Your task to perform on an android device: Show me popular games on the Play Store Image 0: 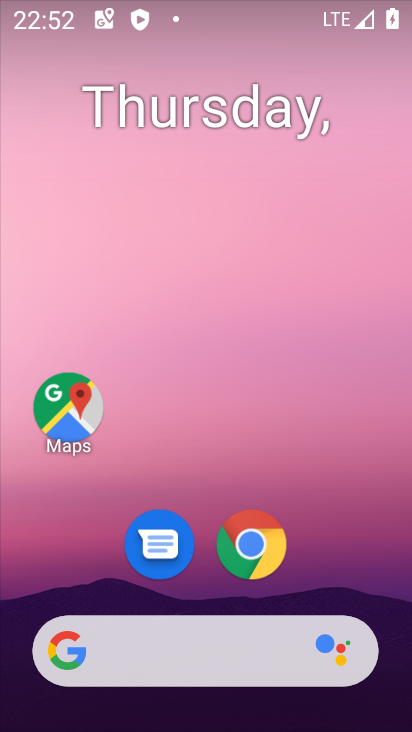
Step 0: drag from (310, 584) to (307, 156)
Your task to perform on an android device: Show me popular games on the Play Store Image 1: 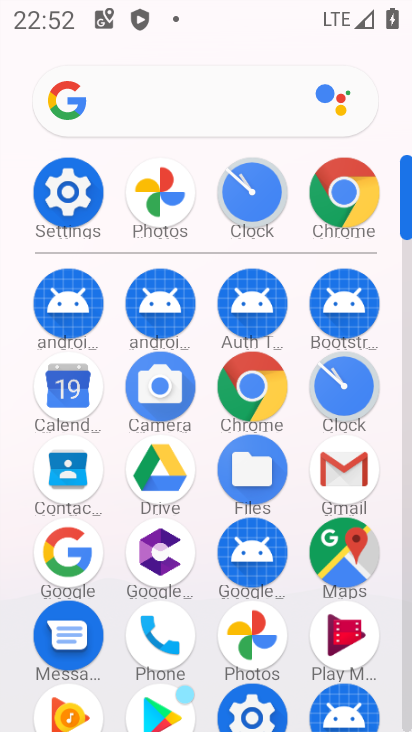
Step 1: click (167, 717)
Your task to perform on an android device: Show me popular games on the Play Store Image 2: 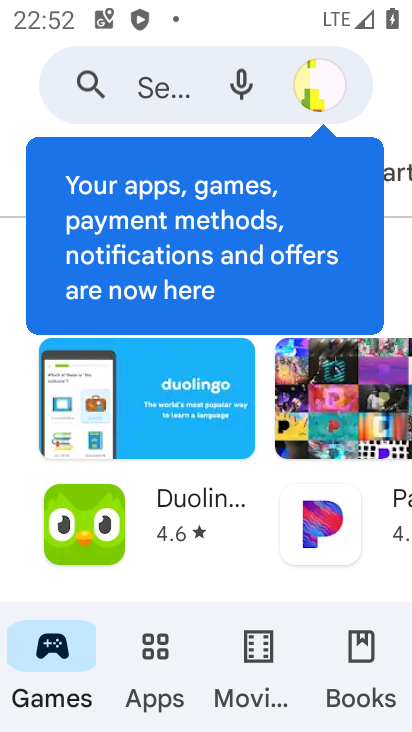
Step 2: drag from (161, 590) to (160, 475)
Your task to perform on an android device: Show me popular games on the Play Store Image 3: 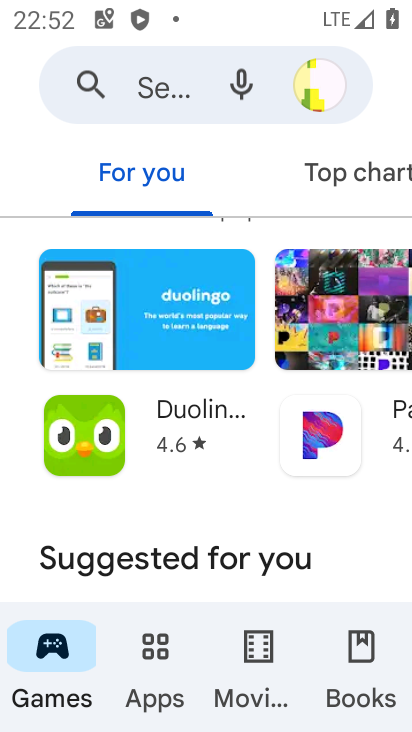
Step 3: drag from (178, 293) to (183, 514)
Your task to perform on an android device: Show me popular games on the Play Store Image 4: 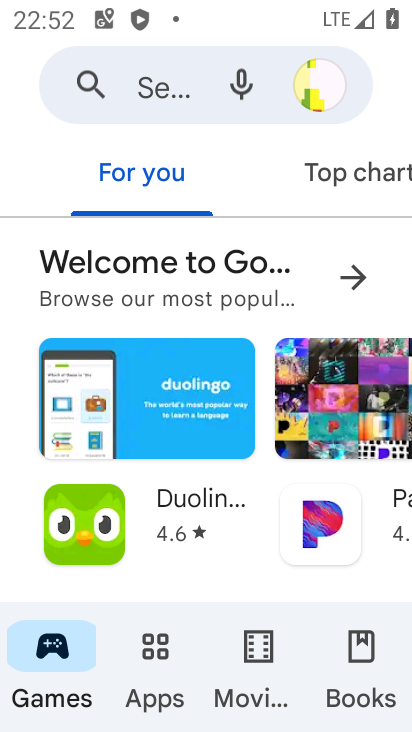
Step 4: click (356, 274)
Your task to perform on an android device: Show me popular games on the Play Store Image 5: 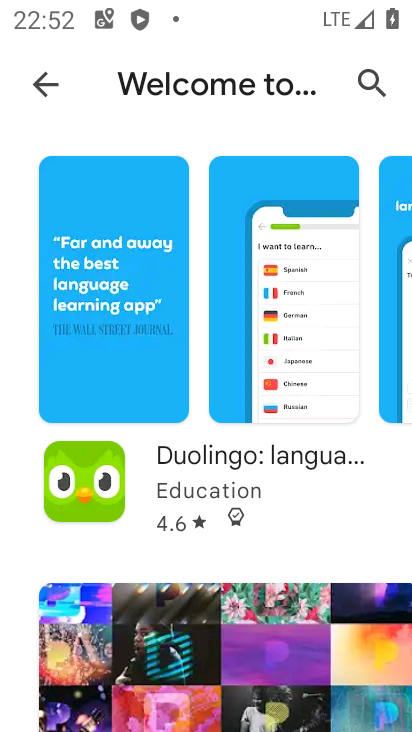
Step 5: drag from (217, 572) to (212, 461)
Your task to perform on an android device: Show me popular games on the Play Store Image 6: 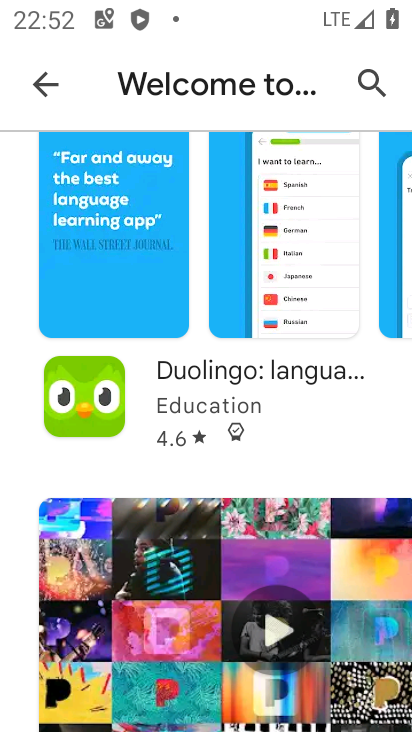
Step 6: click (40, 88)
Your task to perform on an android device: Show me popular games on the Play Store Image 7: 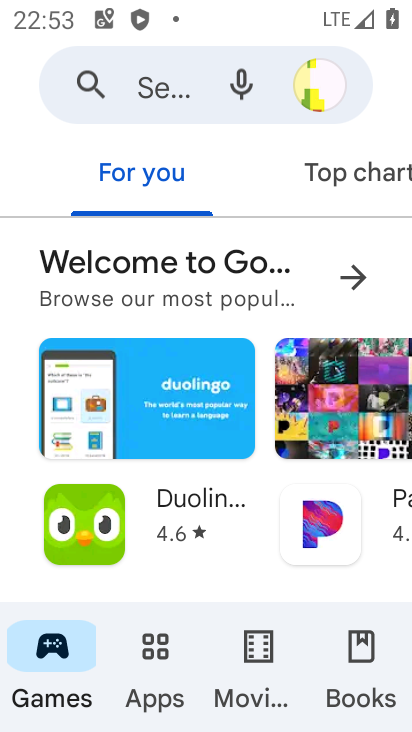
Step 7: drag from (240, 313) to (214, 585)
Your task to perform on an android device: Show me popular games on the Play Store Image 8: 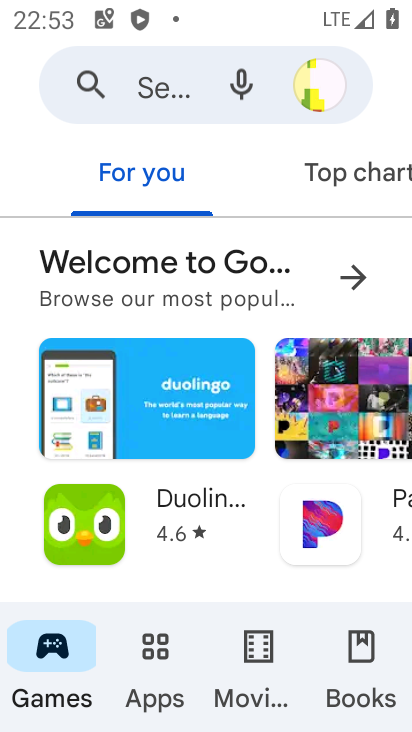
Step 8: click (218, 324)
Your task to perform on an android device: Show me popular games on the Play Store Image 9: 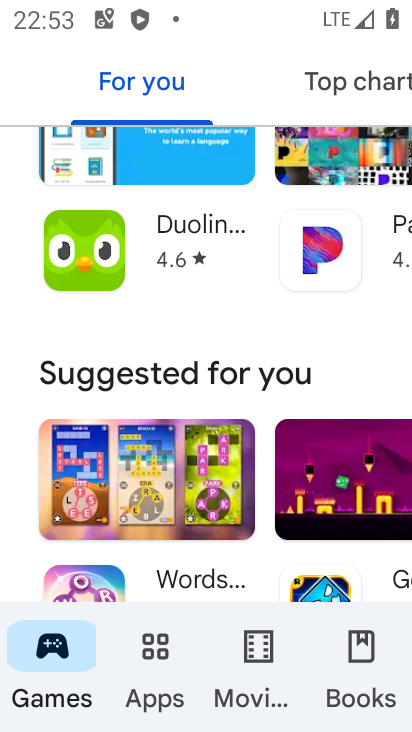
Step 9: click (196, 298)
Your task to perform on an android device: Show me popular games on the Play Store Image 10: 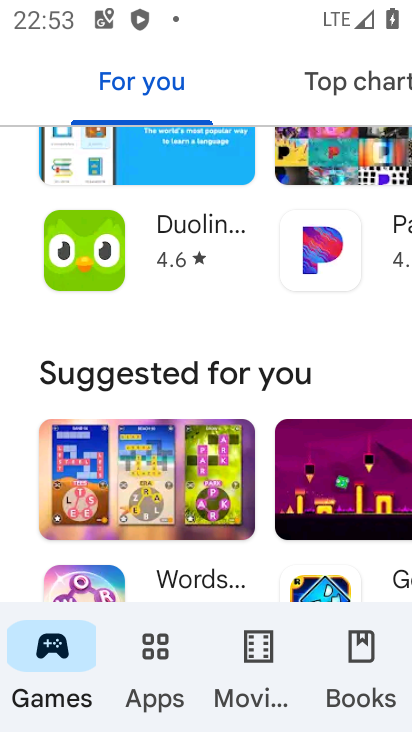
Step 10: drag from (196, 368) to (196, 513)
Your task to perform on an android device: Show me popular games on the Play Store Image 11: 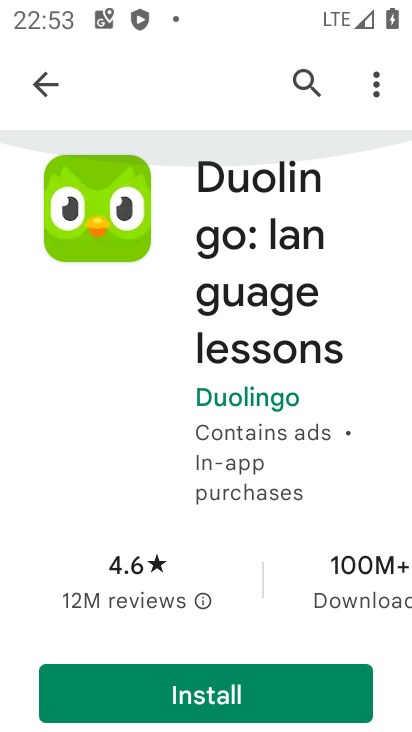
Step 11: click (196, 521)
Your task to perform on an android device: Show me popular games on the Play Store Image 12: 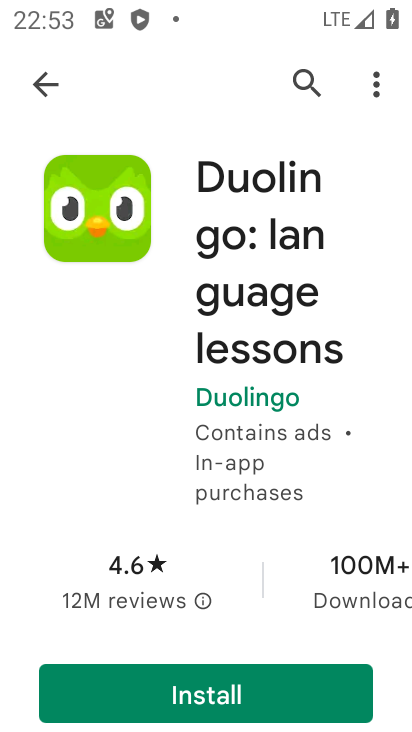
Step 12: drag from (196, 521) to (228, 218)
Your task to perform on an android device: Show me popular games on the Play Store Image 13: 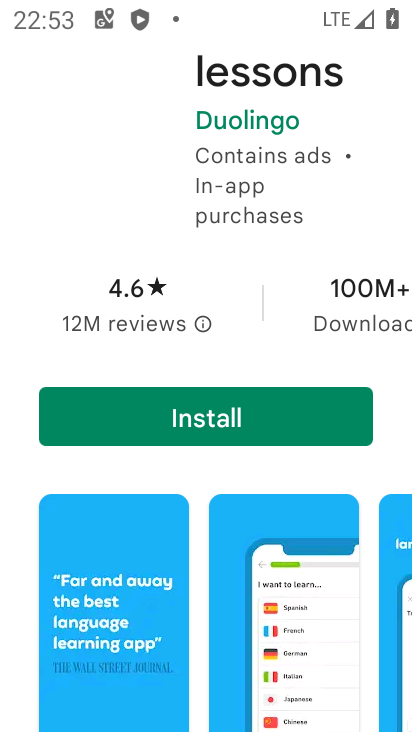
Step 13: drag from (117, 727) to (109, 146)
Your task to perform on an android device: Show me popular games on the Play Store Image 14: 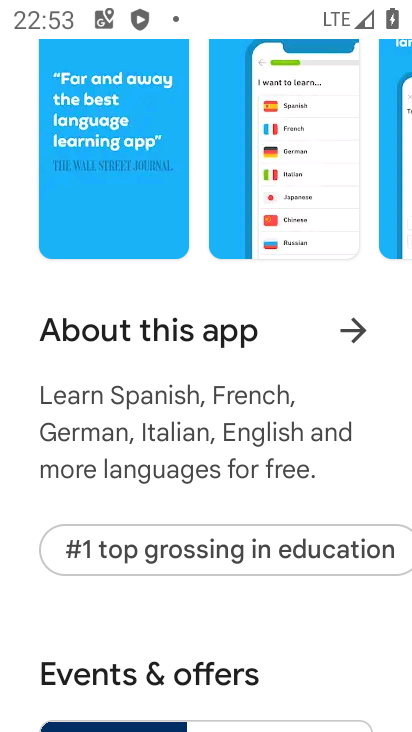
Step 14: drag from (351, 552) to (33, 555)
Your task to perform on an android device: Show me popular games on the Play Store Image 15: 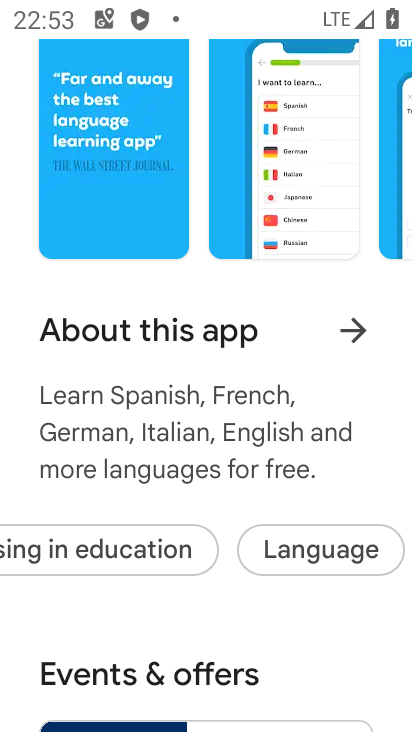
Step 15: drag from (379, 551) to (396, 607)
Your task to perform on an android device: Show me popular games on the Play Store Image 16: 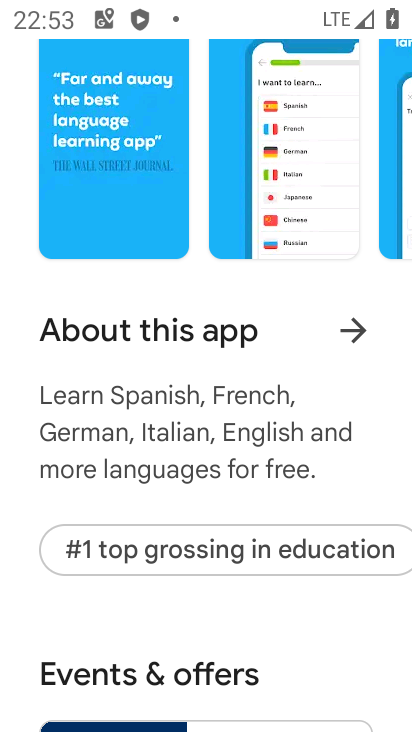
Step 16: click (216, 679)
Your task to perform on an android device: Show me popular games on the Play Store Image 17: 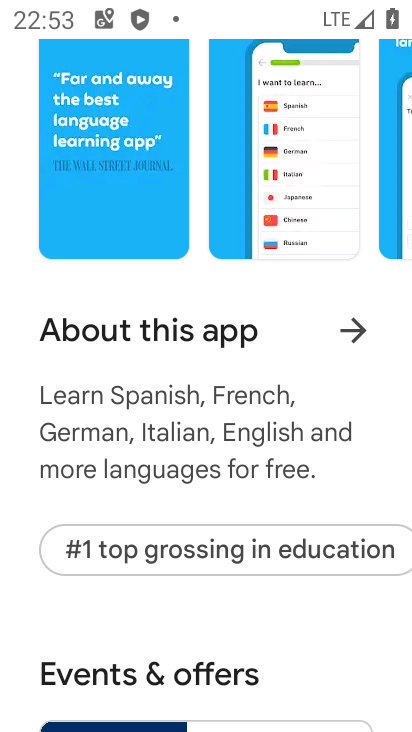
Step 17: click (193, 379)
Your task to perform on an android device: Show me popular games on the Play Store Image 18: 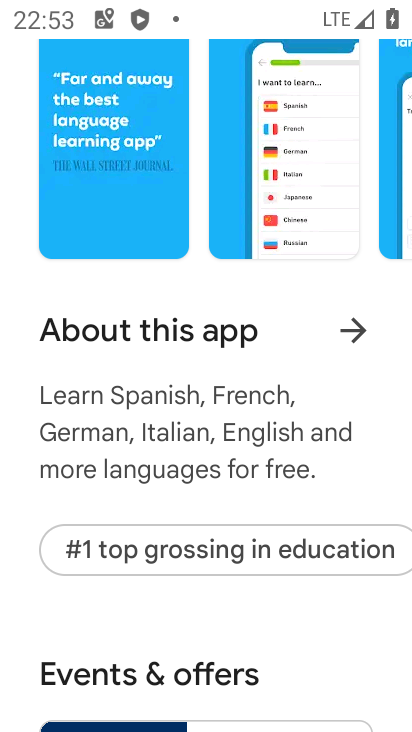
Step 18: task complete